Your task to perform on an android device: check the backup settings in the google photos Image 0: 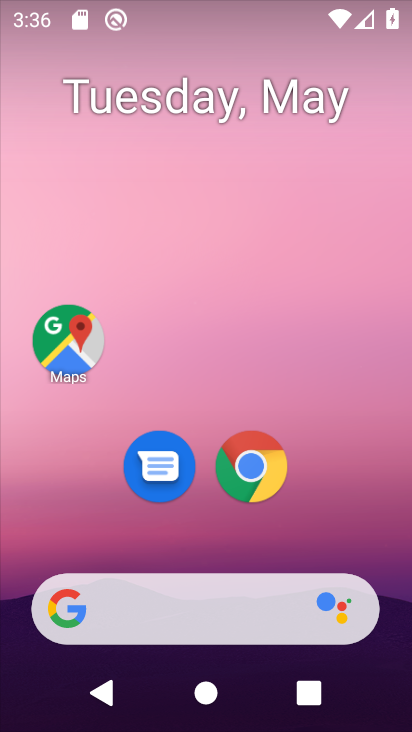
Step 0: drag from (316, 548) to (261, 127)
Your task to perform on an android device: check the backup settings in the google photos Image 1: 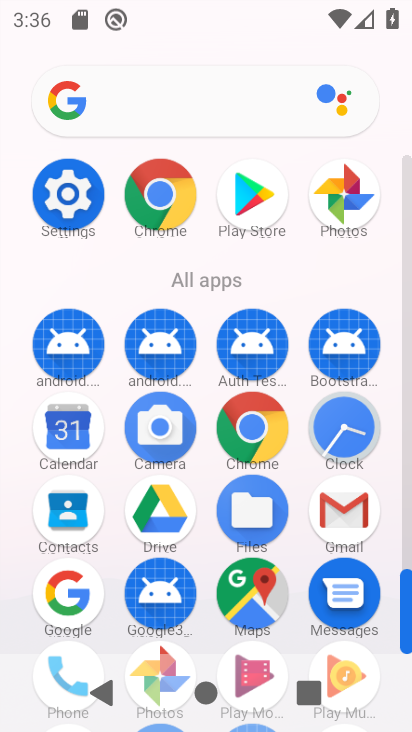
Step 1: click (339, 182)
Your task to perform on an android device: check the backup settings in the google photos Image 2: 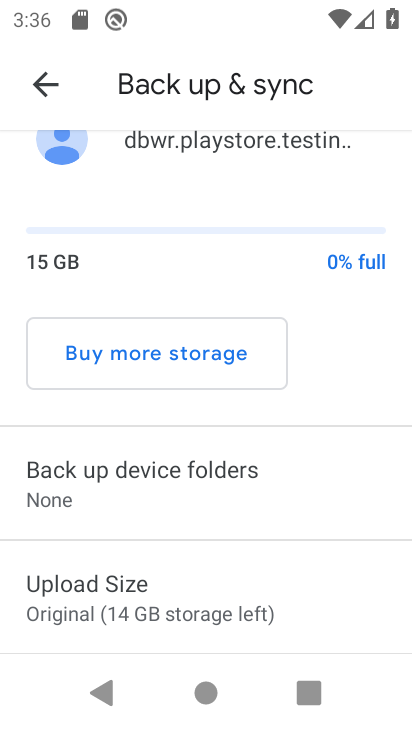
Step 2: task complete